Your task to perform on an android device: Open the calendar app, open the side menu, and click the "Day" option Image 0: 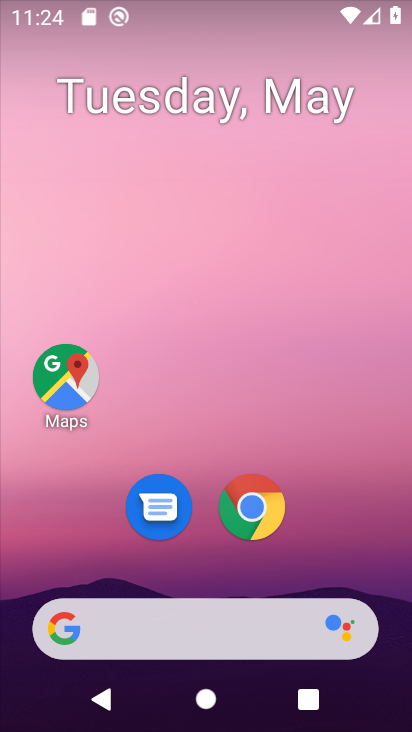
Step 0: drag from (276, 706) to (233, 84)
Your task to perform on an android device: Open the calendar app, open the side menu, and click the "Day" option Image 1: 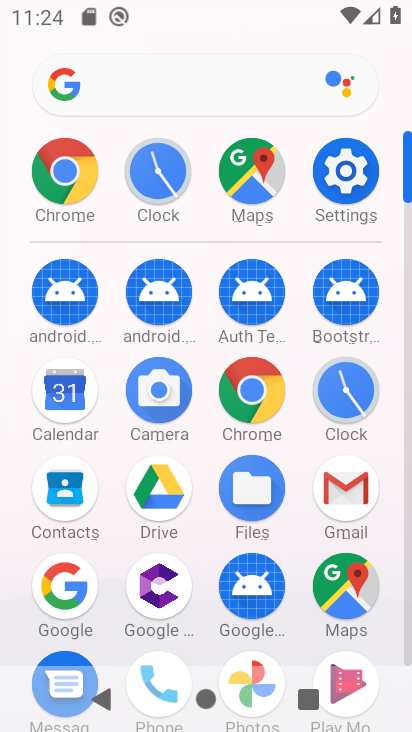
Step 1: click (61, 390)
Your task to perform on an android device: Open the calendar app, open the side menu, and click the "Day" option Image 2: 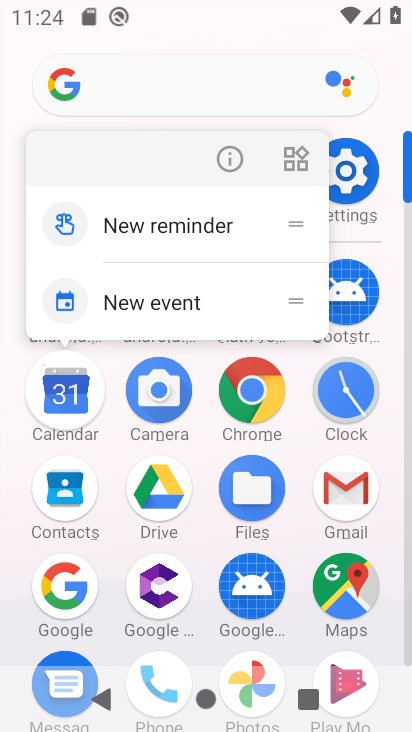
Step 2: click (61, 390)
Your task to perform on an android device: Open the calendar app, open the side menu, and click the "Day" option Image 3: 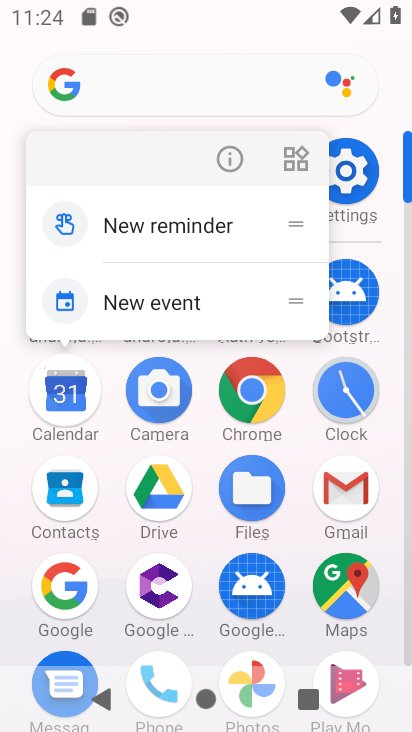
Step 3: click (63, 389)
Your task to perform on an android device: Open the calendar app, open the side menu, and click the "Day" option Image 4: 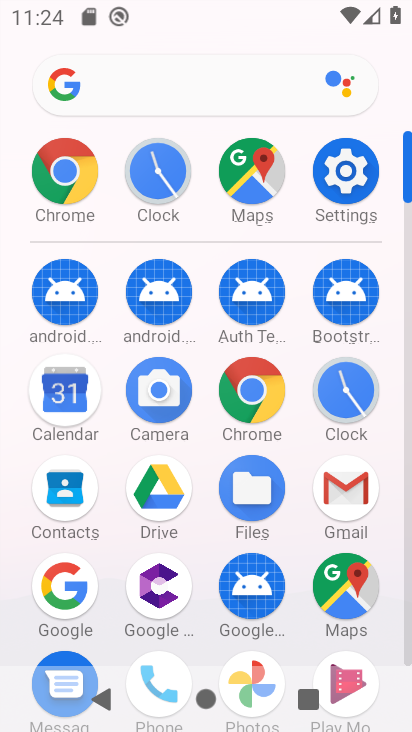
Step 4: click (65, 387)
Your task to perform on an android device: Open the calendar app, open the side menu, and click the "Day" option Image 5: 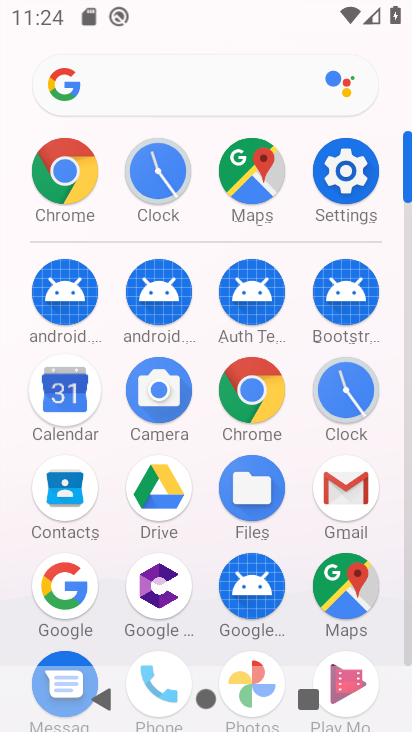
Step 5: click (65, 387)
Your task to perform on an android device: Open the calendar app, open the side menu, and click the "Day" option Image 6: 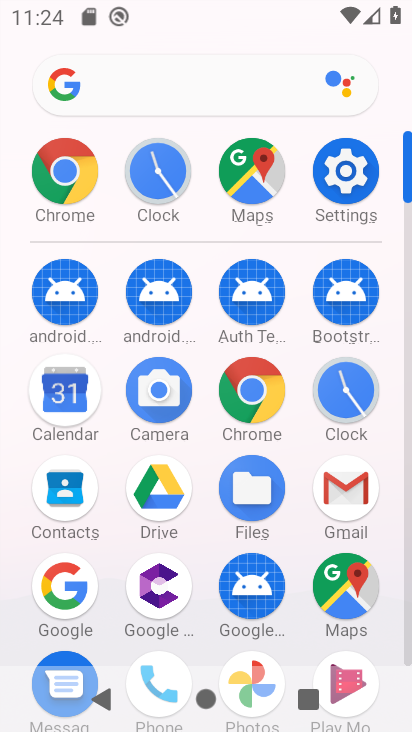
Step 6: click (67, 387)
Your task to perform on an android device: Open the calendar app, open the side menu, and click the "Day" option Image 7: 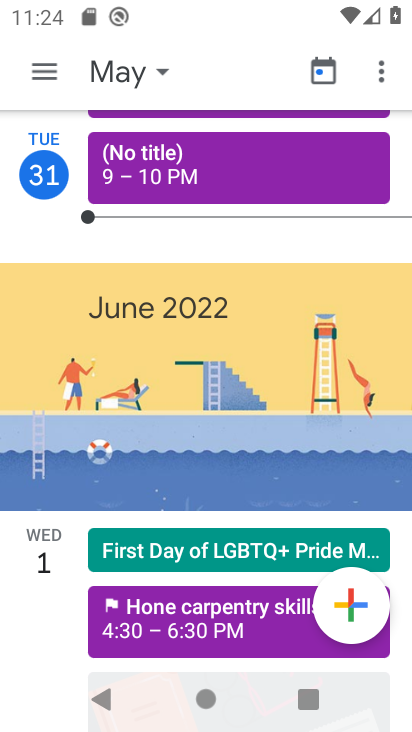
Step 7: click (40, 82)
Your task to perform on an android device: Open the calendar app, open the side menu, and click the "Day" option Image 8: 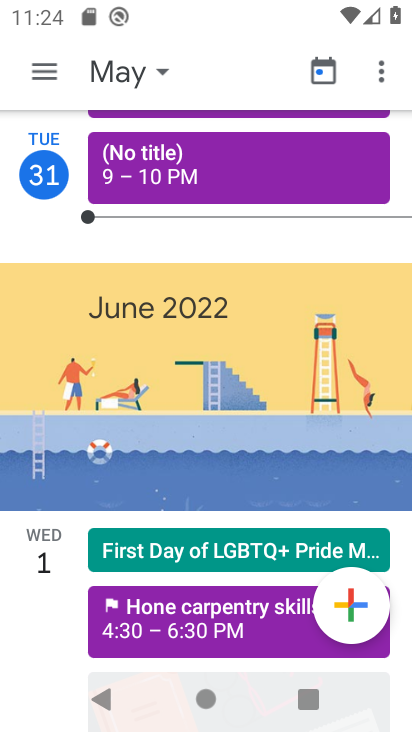
Step 8: click (37, 71)
Your task to perform on an android device: Open the calendar app, open the side menu, and click the "Day" option Image 9: 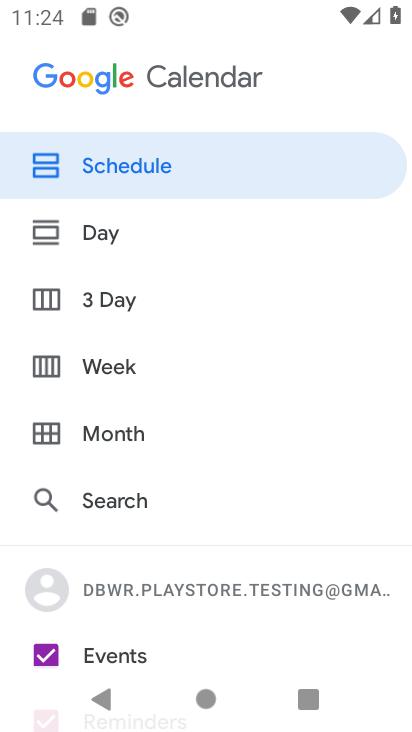
Step 9: click (100, 237)
Your task to perform on an android device: Open the calendar app, open the side menu, and click the "Day" option Image 10: 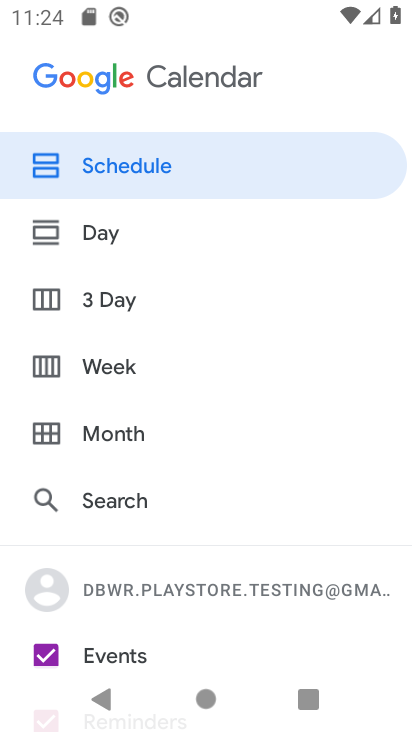
Step 10: click (104, 232)
Your task to perform on an android device: Open the calendar app, open the side menu, and click the "Day" option Image 11: 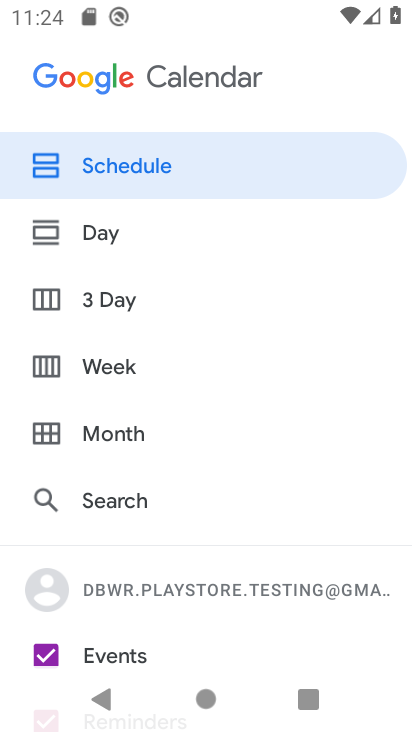
Step 11: click (104, 231)
Your task to perform on an android device: Open the calendar app, open the side menu, and click the "Day" option Image 12: 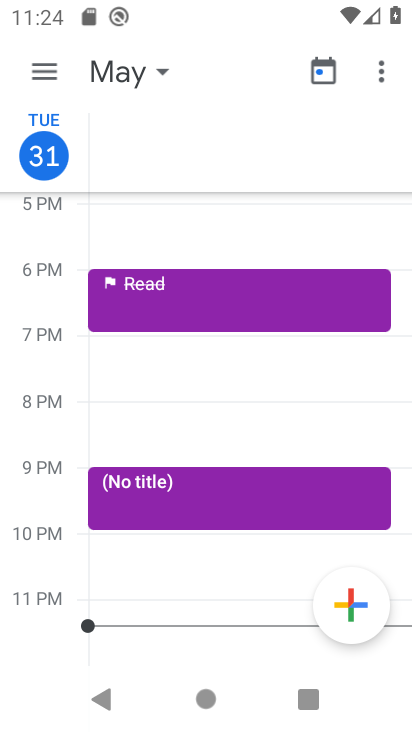
Step 12: task complete